Your task to perform on an android device: set the stopwatch Image 0: 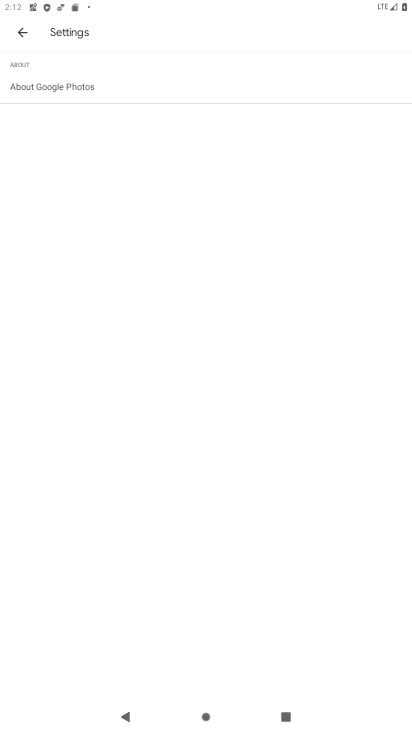
Step 0: press home button
Your task to perform on an android device: set the stopwatch Image 1: 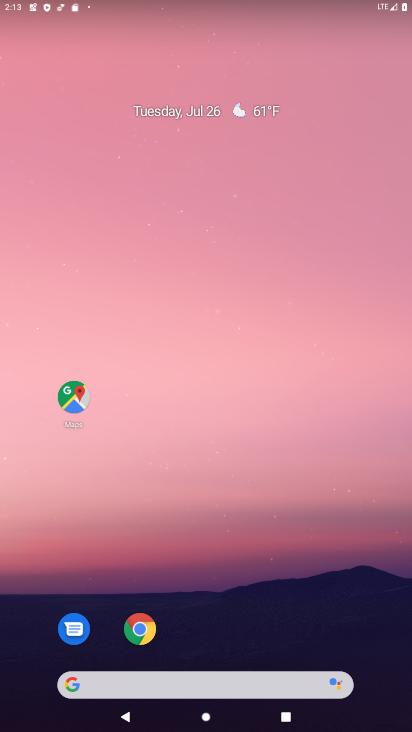
Step 1: drag from (219, 540) to (204, 37)
Your task to perform on an android device: set the stopwatch Image 2: 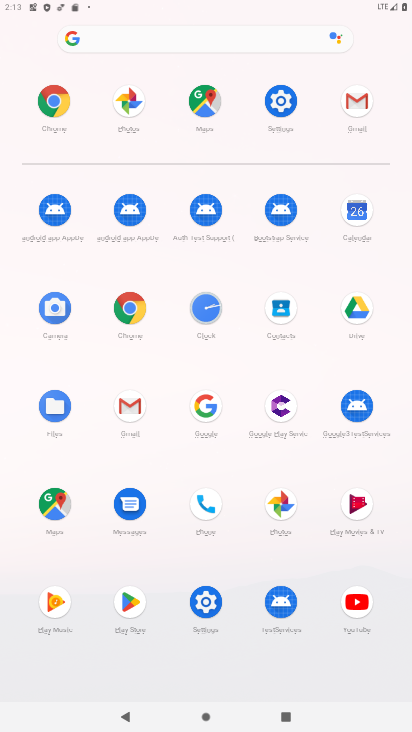
Step 2: click (204, 309)
Your task to perform on an android device: set the stopwatch Image 3: 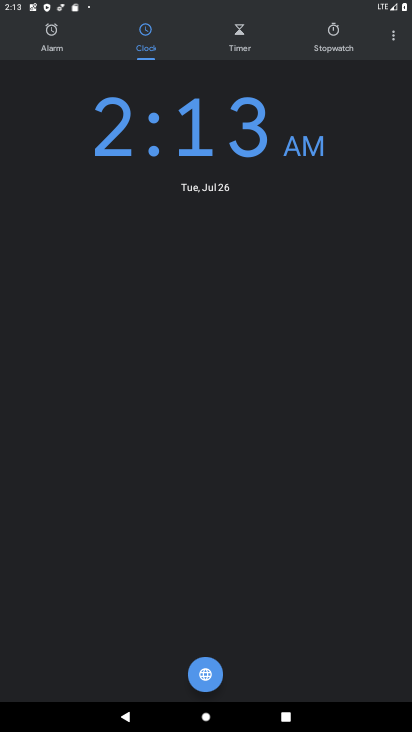
Step 3: click (336, 25)
Your task to perform on an android device: set the stopwatch Image 4: 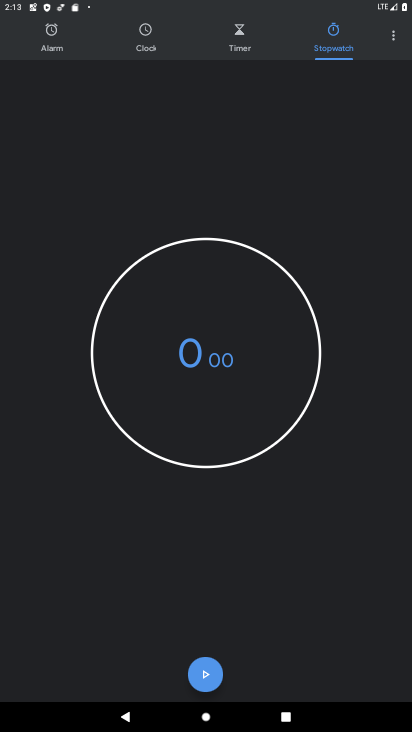
Step 4: task complete